Your task to perform on an android device: move a message to another label in the gmail app Image 0: 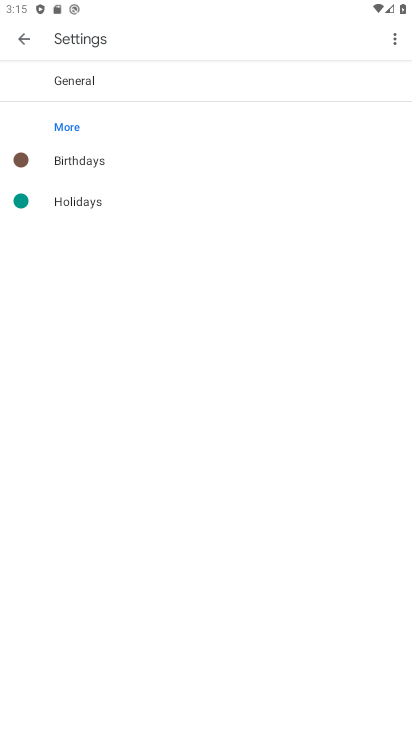
Step 0: press back button
Your task to perform on an android device: move a message to another label in the gmail app Image 1: 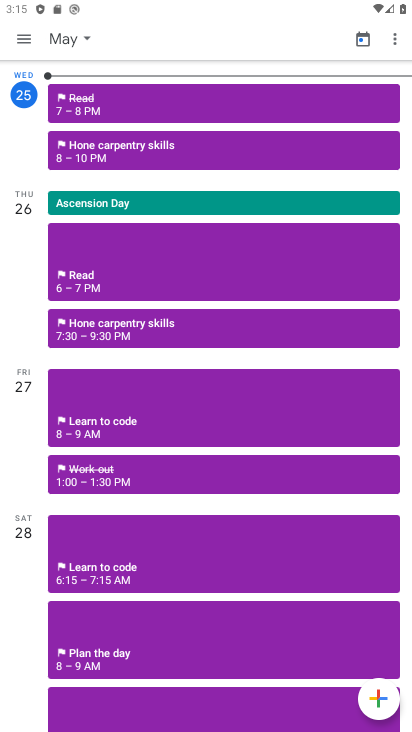
Step 1: press back button
Your task to perform on an android device: move a message to another label in the gmail app Image 2: 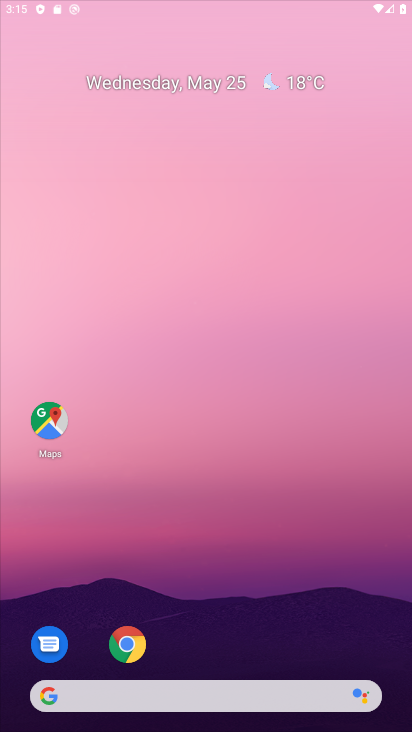
Step 2: press back button
Your task to perform on an android device: move a message to another label in the gmail app Image 3: 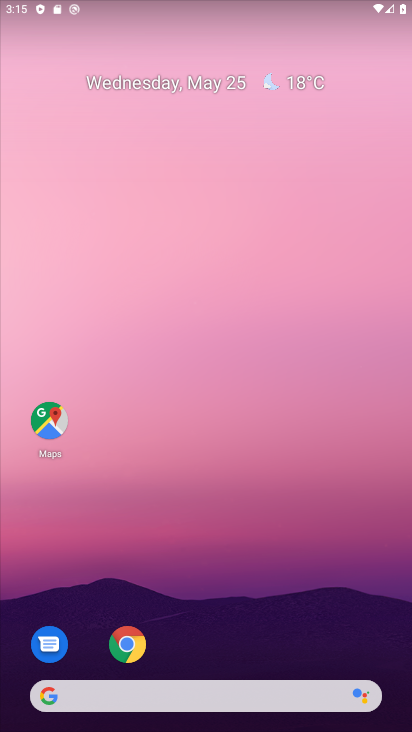
Step 3: drag from (222, 606) to (163, 199)
Your task to perform on an android device: move a message to another label in the gmail app Image 4: 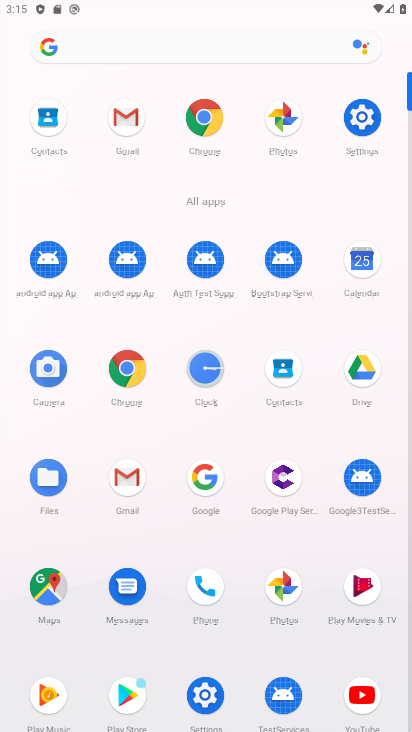
Step 4: click (126, 115)
Your task to perform on an android device: move a message to another label in the gmail app Image 5: 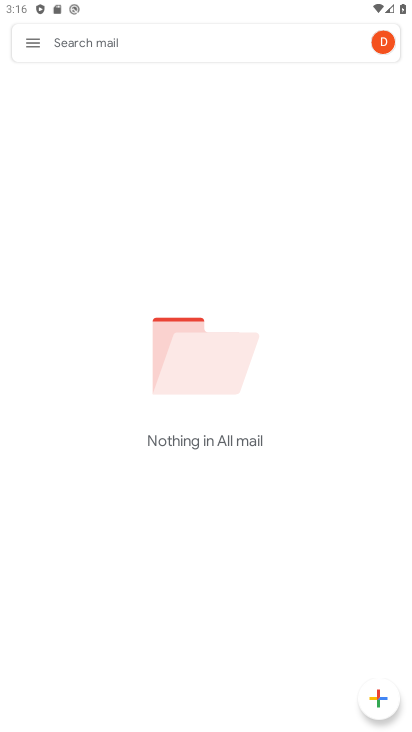
Step 5: click (29, 43)
Your task to perform on an android device: move a message to another label in the gmail app Image 6: 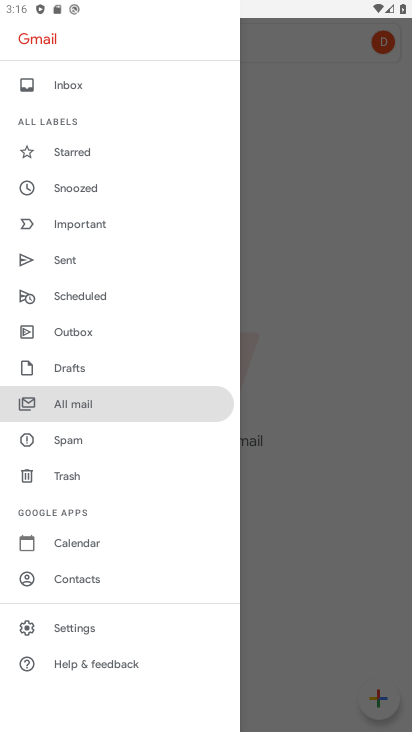
Step 6: click (64, 89)
Your task to perform on an android device: move a message to another label in the gmail app Image 7: 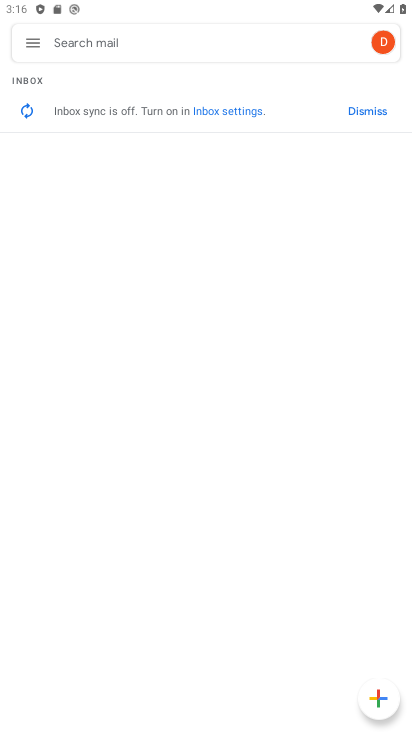
Step 7: click (32, 48)
Your task to perform on an android device: move a message to another label in the gmail app Image 8: 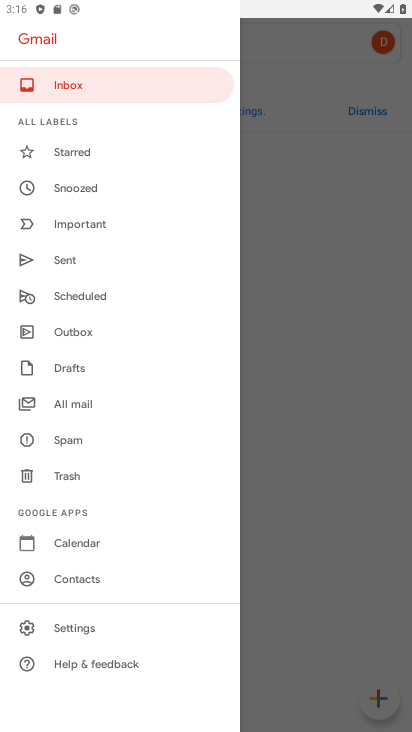
Step 8: click (83, 155)
Your task to perform on an android device: move a message to another label in the gmail app Image 9: 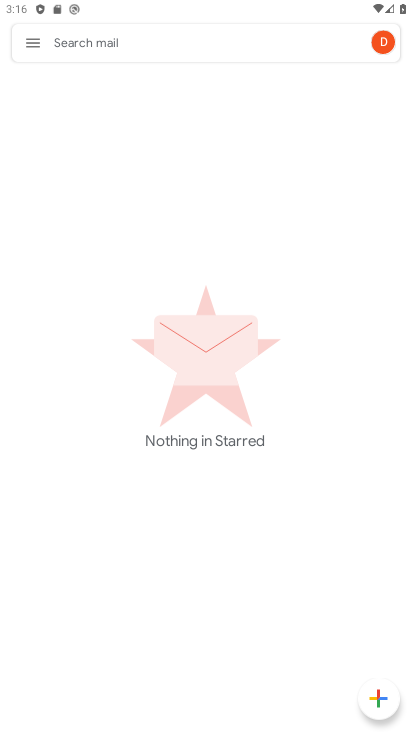
Step 9: click (29, 40)
Your task to perform on an android device: move a message to another label in the gmail app Image 10: 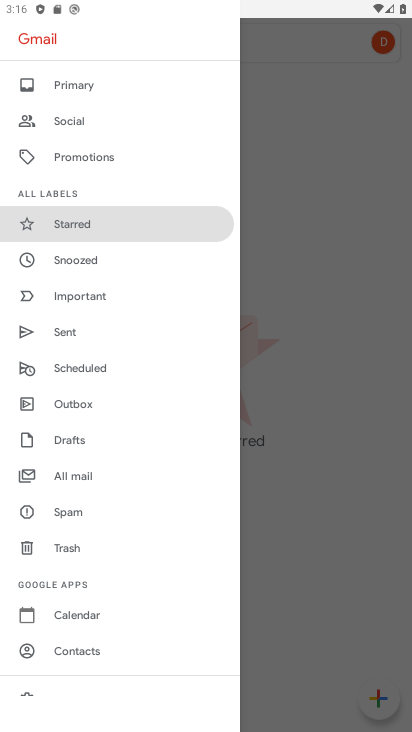
Step 10: click (76, 259)
Your task to perform on an android device: move a message to another label in the gmail app Image 11: 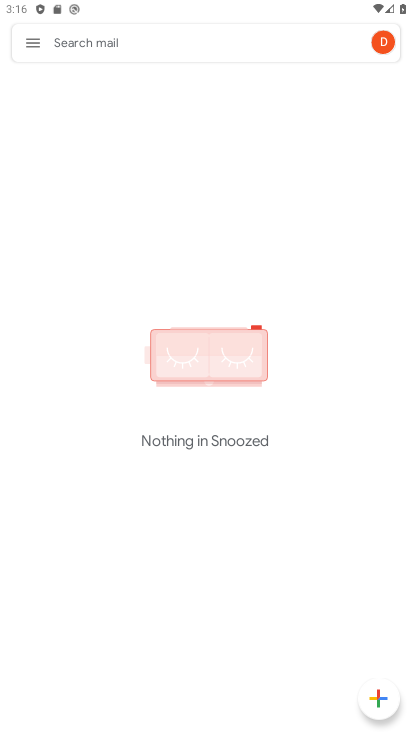
Step 11: click (38, 40)
Your task to perform on an android device: move a message to another label in the gmail app Image 12: 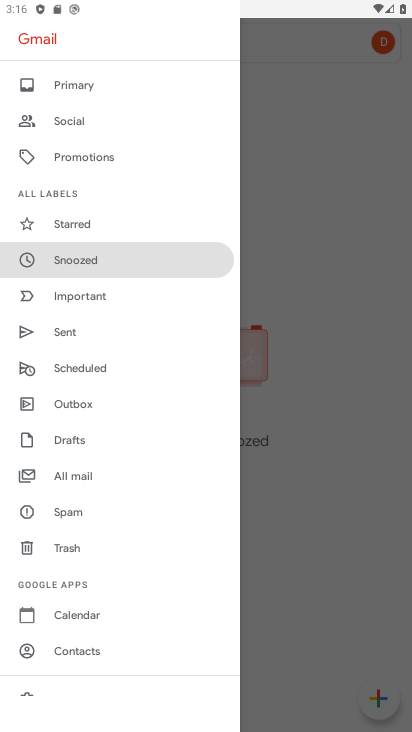
Step 12: click (62, 305)
Your task to perform on an android device: move a message to another label in the gmail app Image 13: 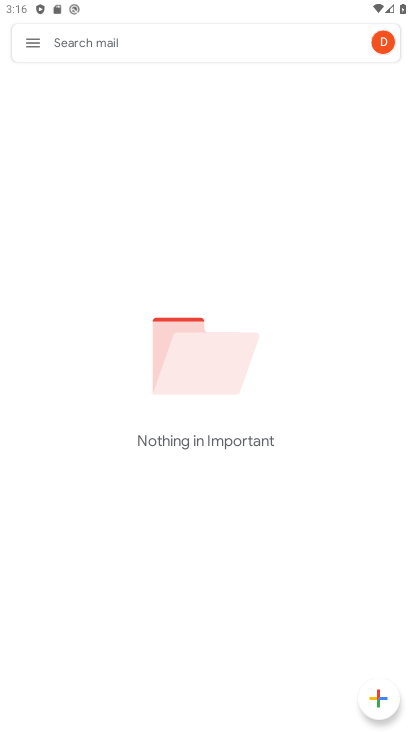
Step 13: click (32, 41)
Your task to perform on an android device: move a message to another label in the gmail app Image 14: 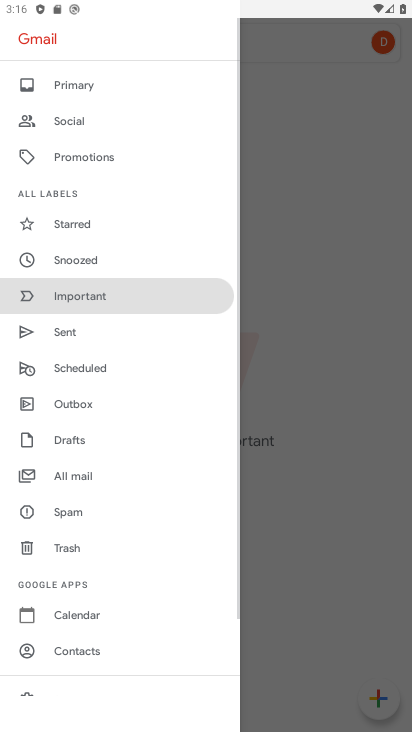
Step 14: click (60, 341)
Your task to perform on an android device: move a message to another label in the gmail app Image 15: 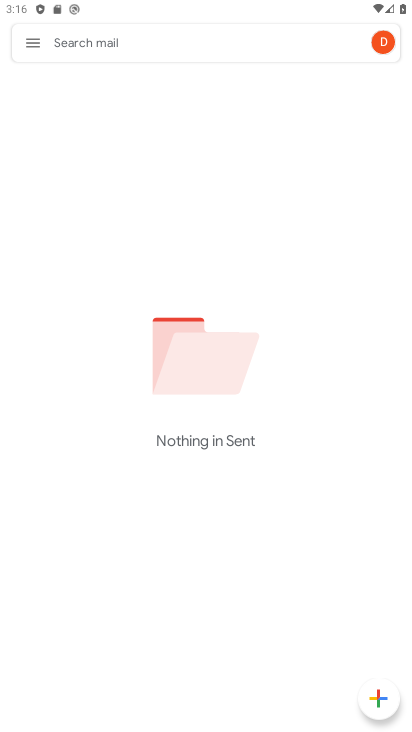
Step 15: click (35, 41)
Your task to perform on an android device: move a message to another label in the gmail app Image 16: 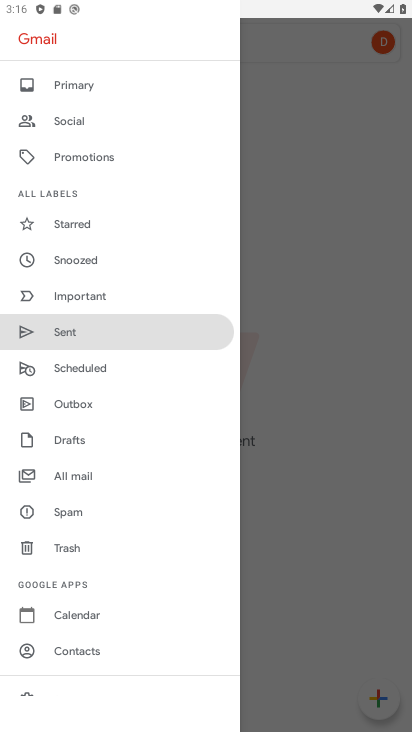
Step 16: click (101, 364)
Your task to perform on an android device: move a message to another label in the gmail app Image 17: 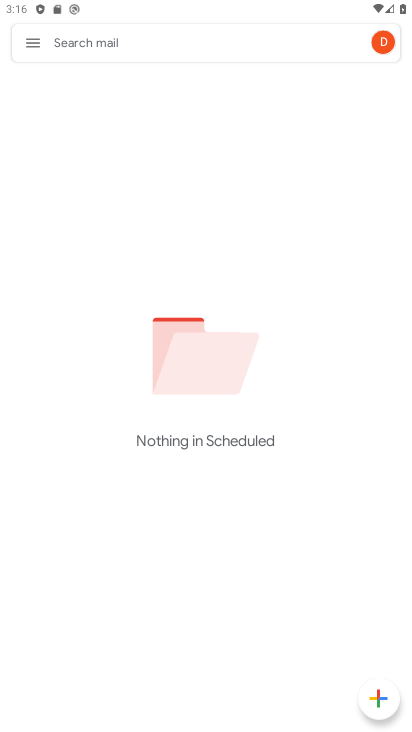
Step 17: click (30, 41)
Your task to perform on an android device: move a message to another label in the gmail app Image 18: 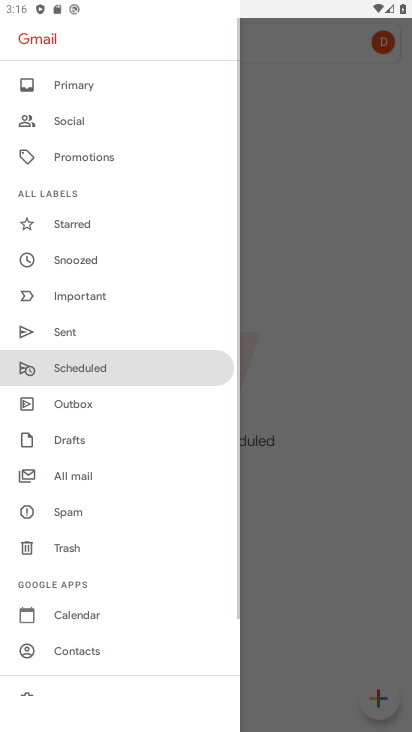
Step 18: click (84, 408)
Your task to perform on an android device: move a message to another label in the gmail app Image 19: 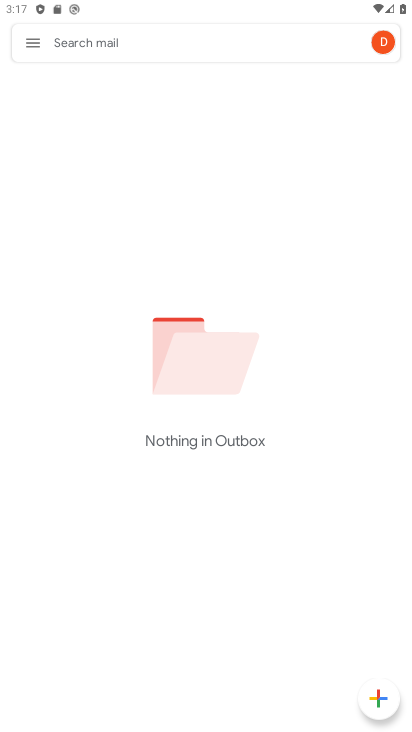
Step 19: task complete